Your task to perform on an android device: Go to battery settings Image 0: 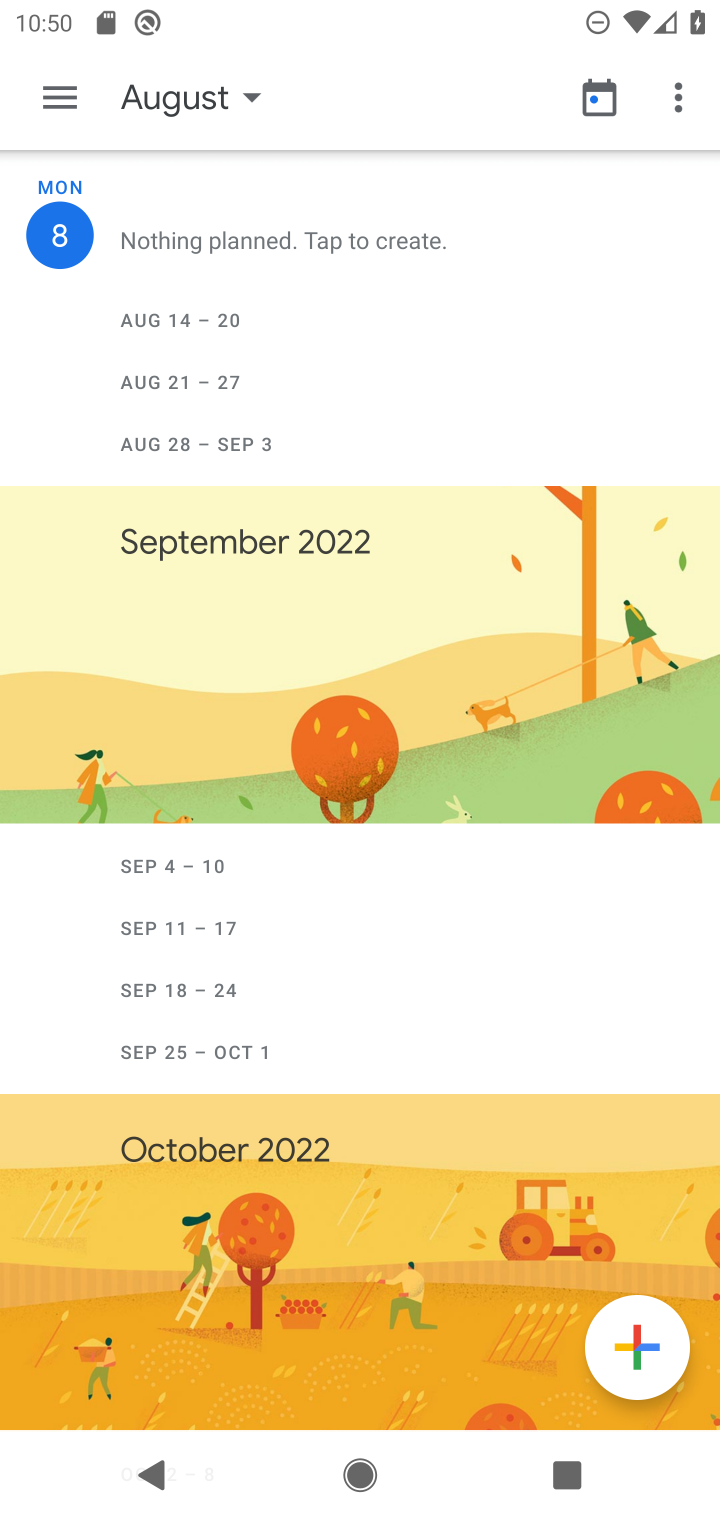
Step 0: press home button
Your task to perform on an android device: Go to battery settings Image 1: 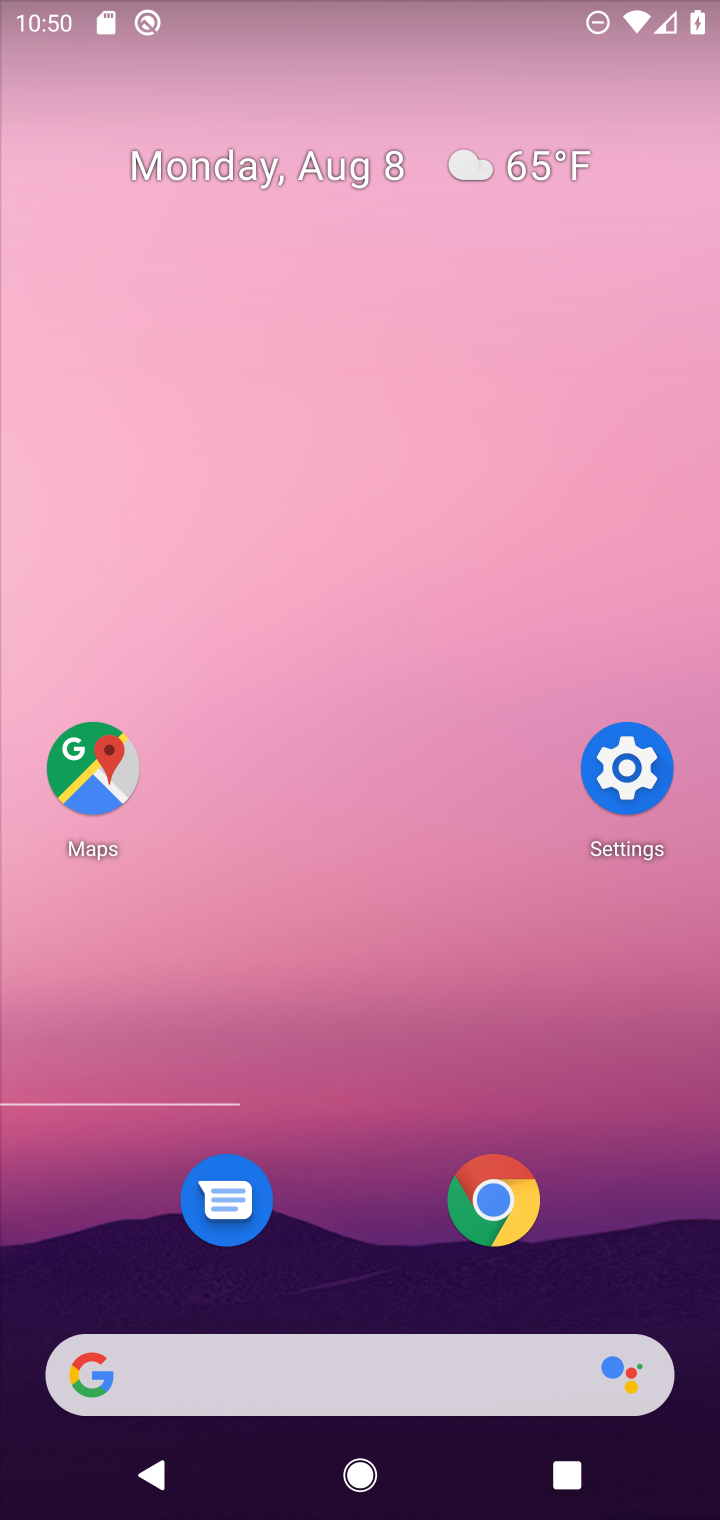
Step 1: click (616, 752)
Your task to perform on an android device: Go to battery settings Image 2: 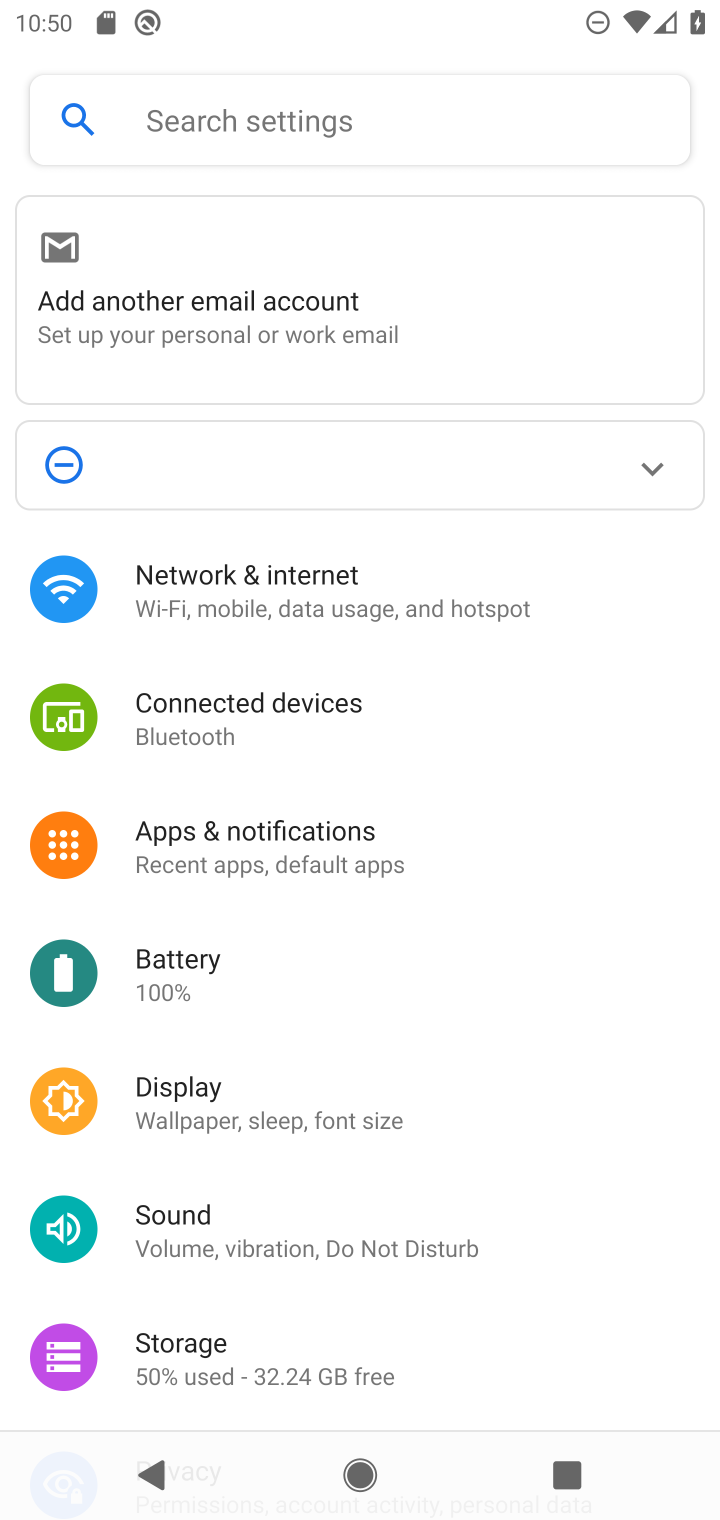
Step 2: click (190, 967)
Your task to perform on an android device: Go to battery settings Image 3: 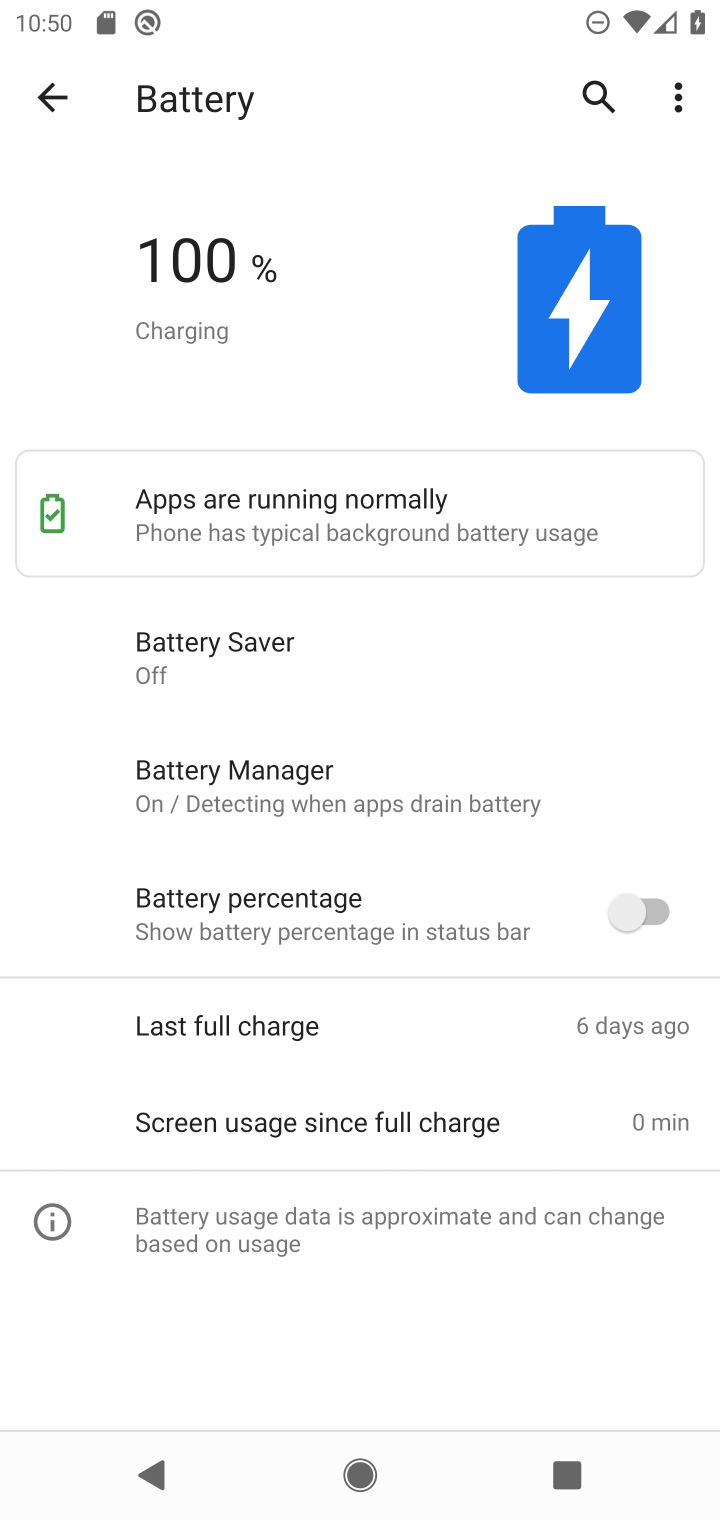
Step 3: task complete